Your task to perform on an android device: change the clock display to digital Image 0: 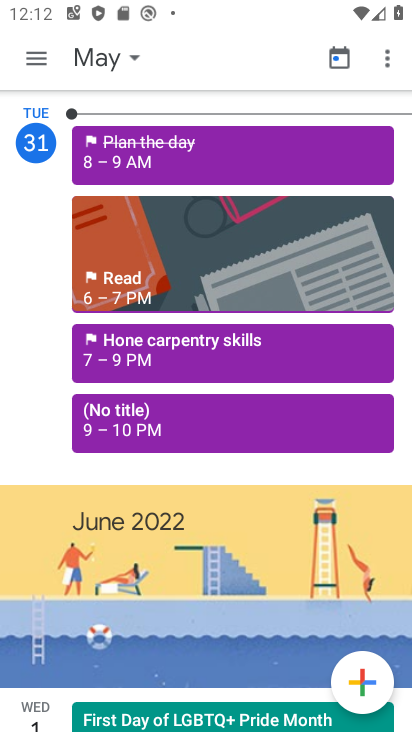
Step 0: press home button
Your task to perform on an android device: change the clock display to digital Image 1: 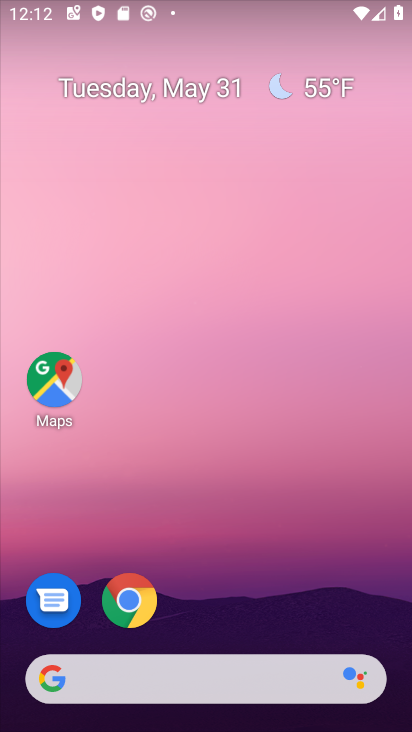
Step 1: drag from (269, 578) to (269, 70)
Your task to perform on an android device: change the clock display to digital Image 2: 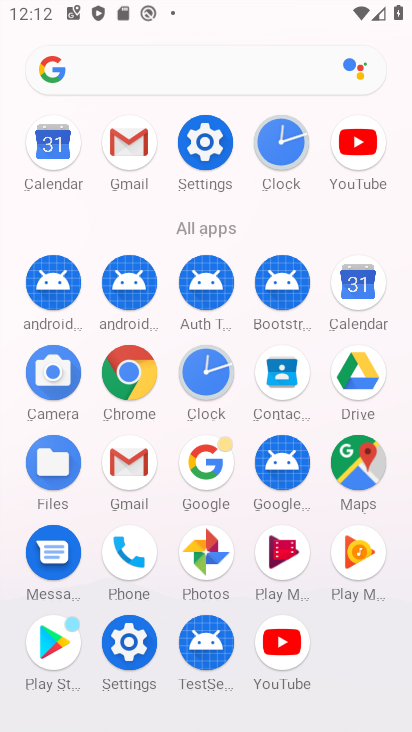
Step 2: click (278, 144)
Your task to perform on an android device: change the clock display to digital Image 3: 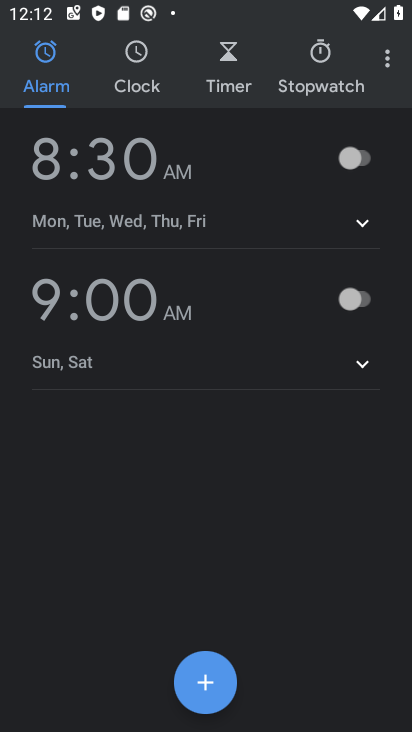
Step 3: click (391, 56)
Your task to perform on an android device: change the clock display to digital Image 4: 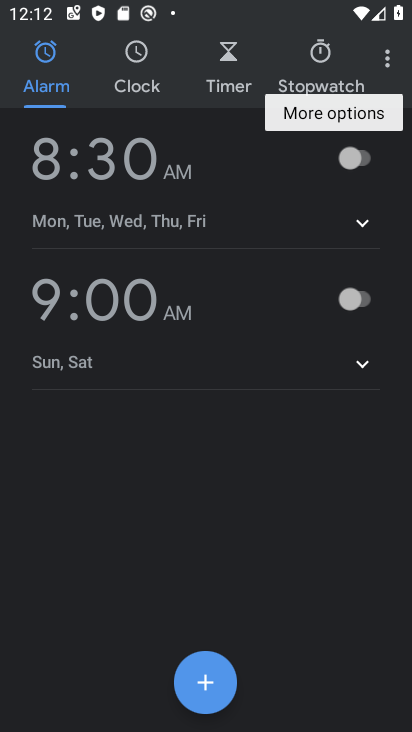
Step 4: click (391, 56)
Your task to perform on an android device: change the clock display to digital Image 5: 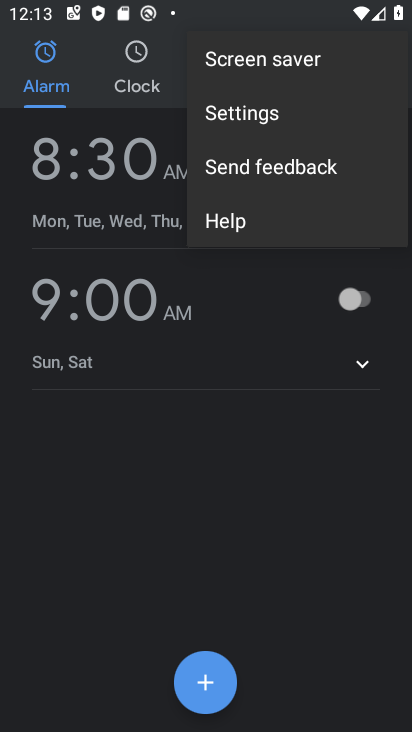
Step 5: click (237, 120)
Your task to perform on an android device: change the clock display to digital Image 6: 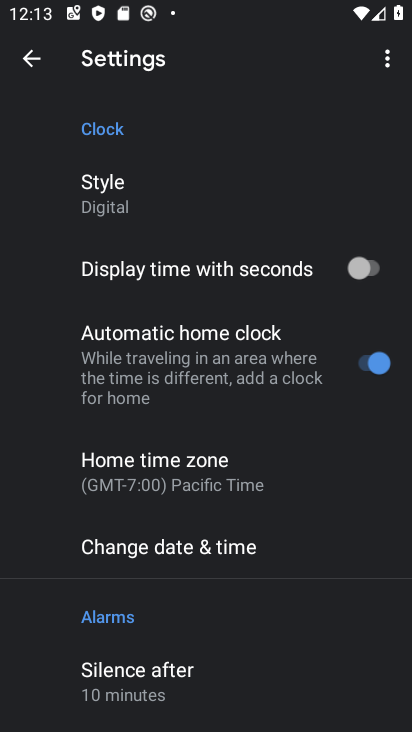
Step 6: click (148, 200)
Your task to perform on an android device: change the clock display to digital Image 7: 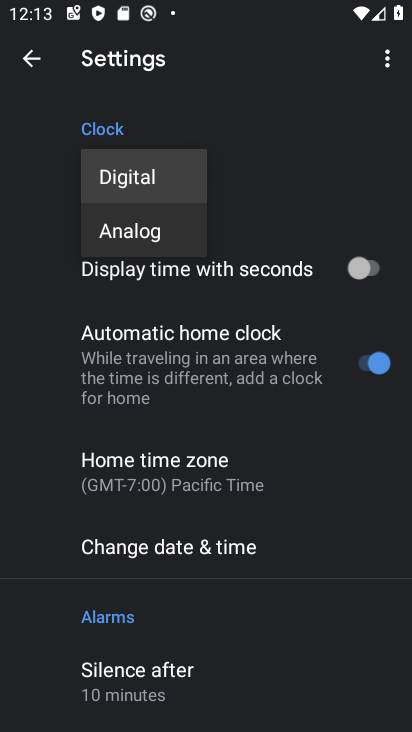
Step 7: task complete